Your task to perform on an android device: check storage Image 0: 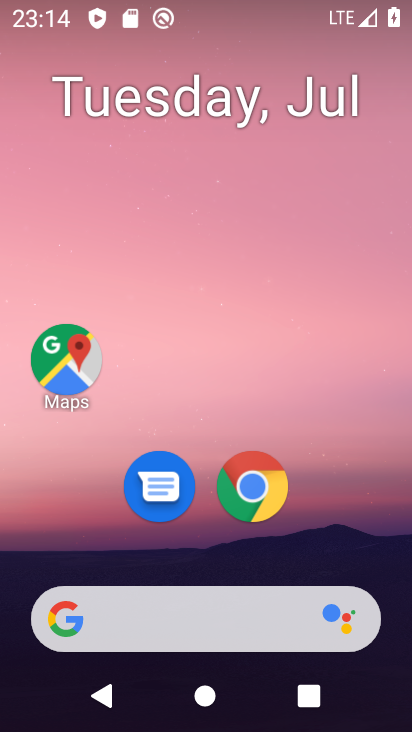
Step 0: press home button
Your task to perform on an android device: check storage Image 1: 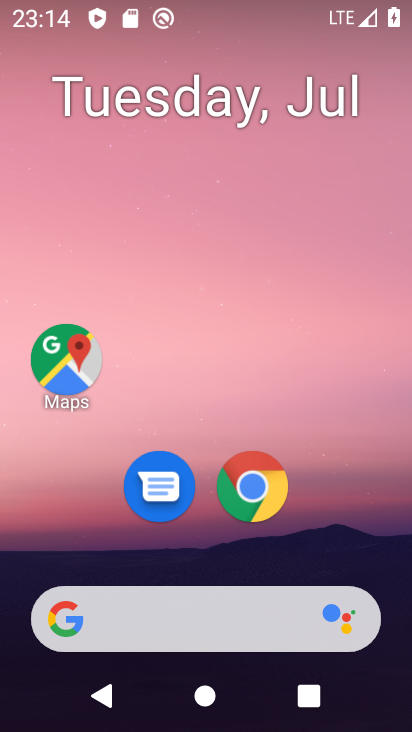
Step 1: drag from (352, 530) to (355, 150)
Your task to perform on an android device: check storage Image 2: 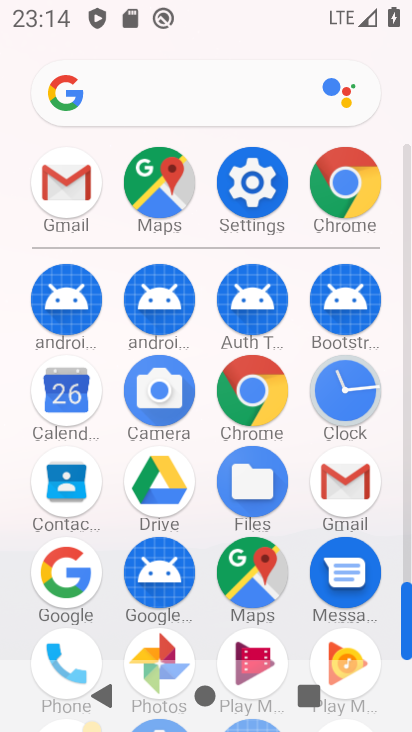
Step 2: click (253, 197)
Your task to perform on an android device: check storage Image 3: 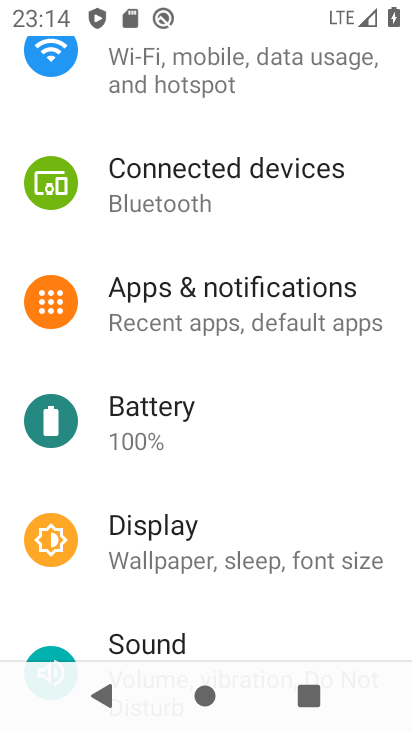
Step 3: drag from (328, 210) to (338, 339)
Your task to perform on an android device: check storage Image 4: 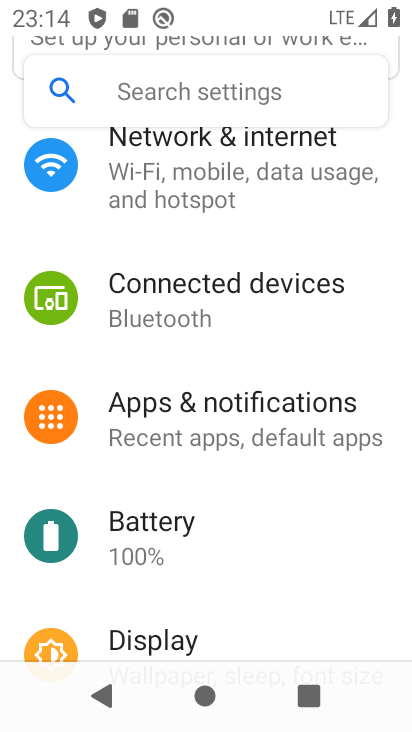
Step 4: drag from (364, 211) to (369, 341)
Your task to perform on an android device: check storage Image 5: 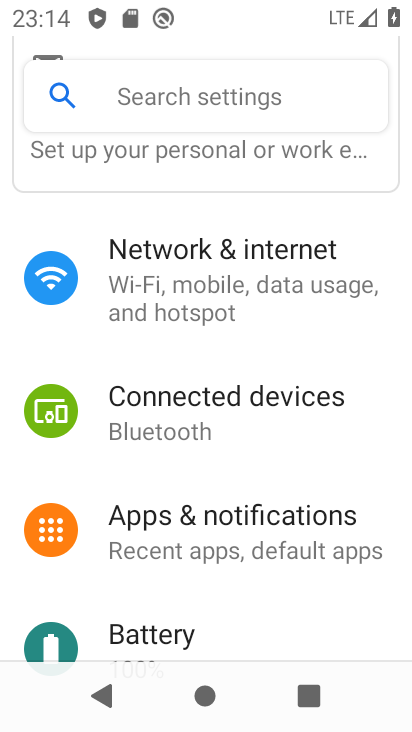
Step 5: drag from (367, 205) to (367, 339)
Your task to perform on an android device: check storage Image 6: 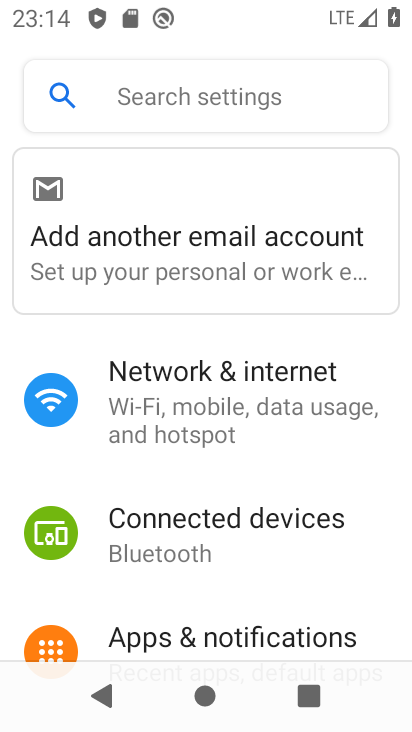
Step 6: drag from (377, 210) to (377, 385)
Your task to perform on an android device: check storage Image 7: 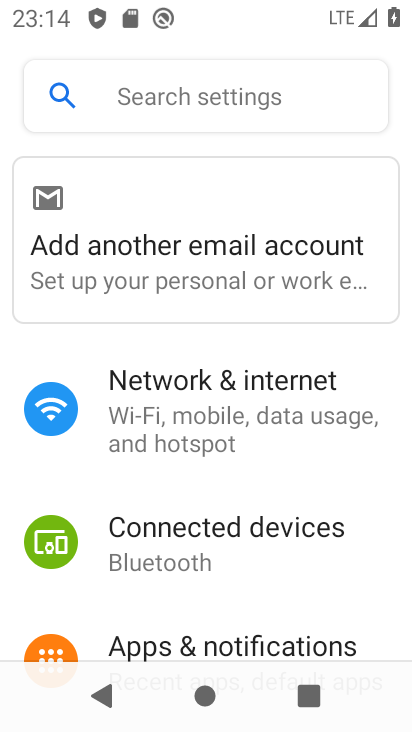
Step 7: drag from (336, 494) to (335, 401)
Your task to perform on an android device: check storage Image 8: 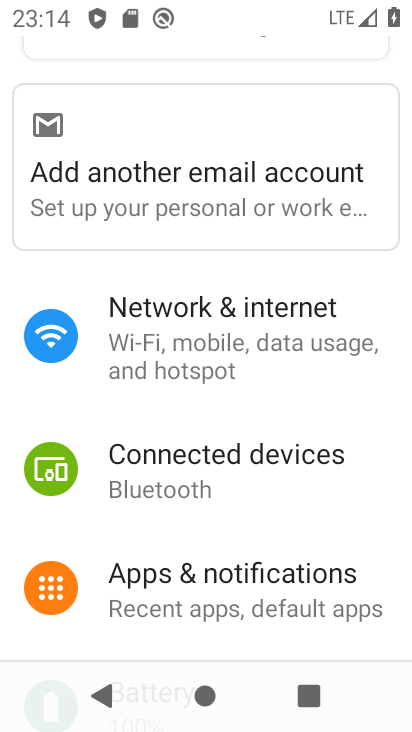
Step 8: drag from (336, 507) to (345, 405)
Your task to perform on an android device: check storage Image 9: 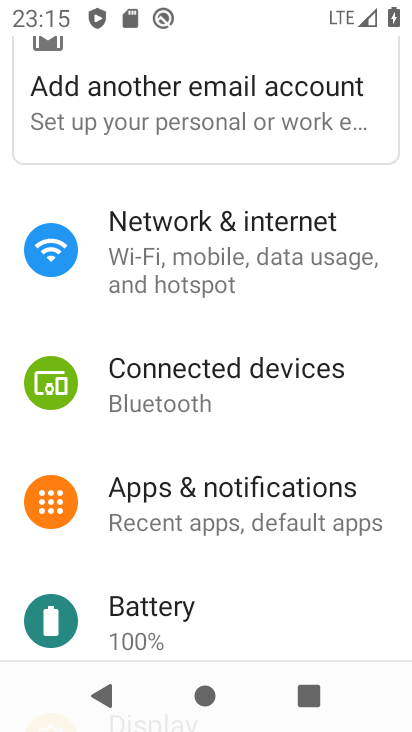
Step 9: drag from (311, 580) to (324, 377)
Your task to perform on an android device: check storage Image 10: 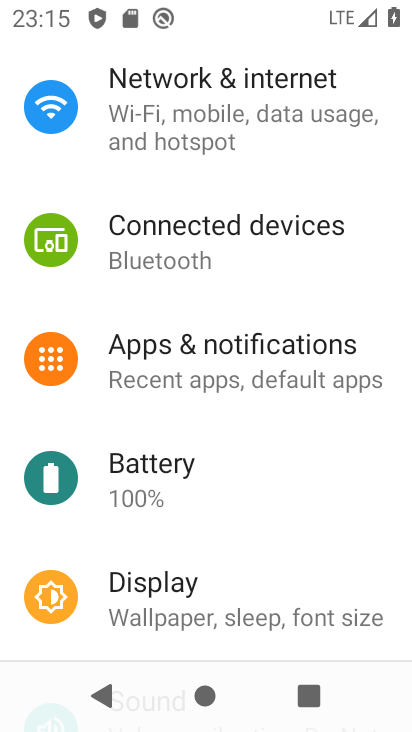
Step 10: drag from (301, 516) to (299, 403)
Your task to perform on an android device: check storage Image 11: 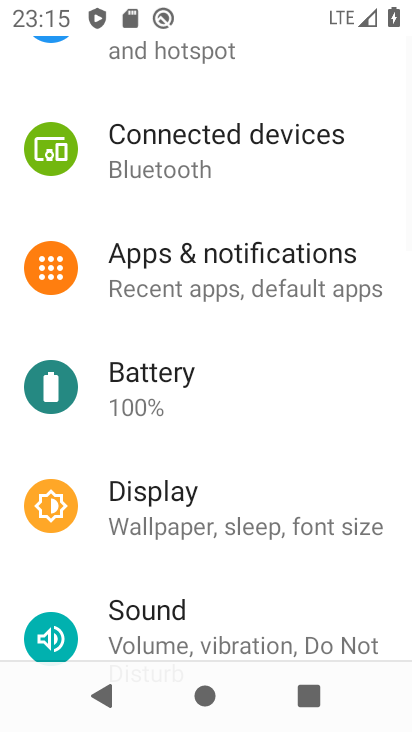
Step 11: drag from (289, 494) to (286, 397)
Your task to perform on an android device: check storage Image 12: 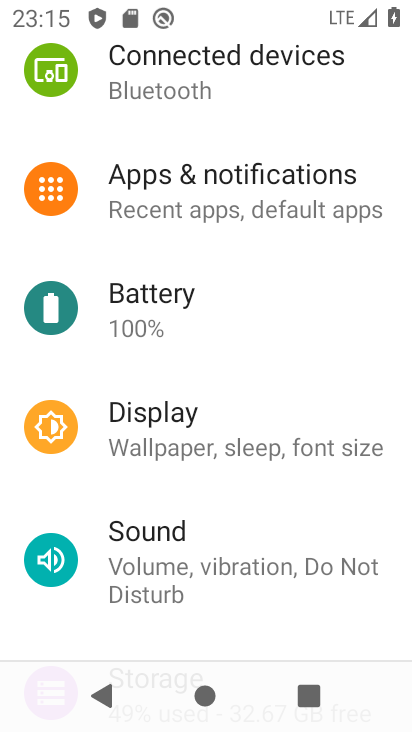
Step 12: drag from (269, 468) to (269, 378)
Your task to perform on an android device: check storage Image 13: 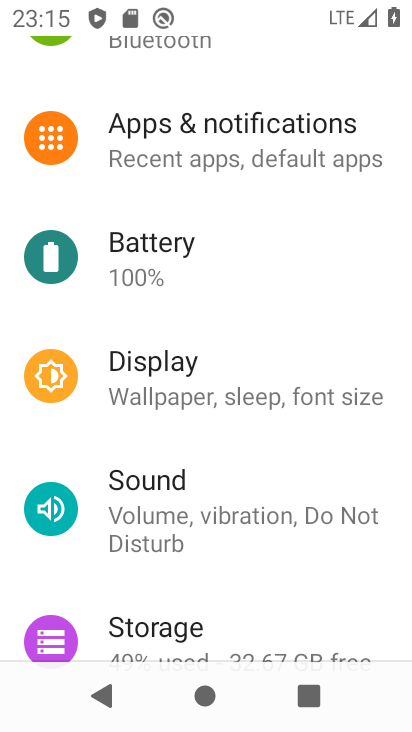
Step 13: drag from (286, 485) to (287, 386)
Your task to perform on an android device: check storage Image 14: 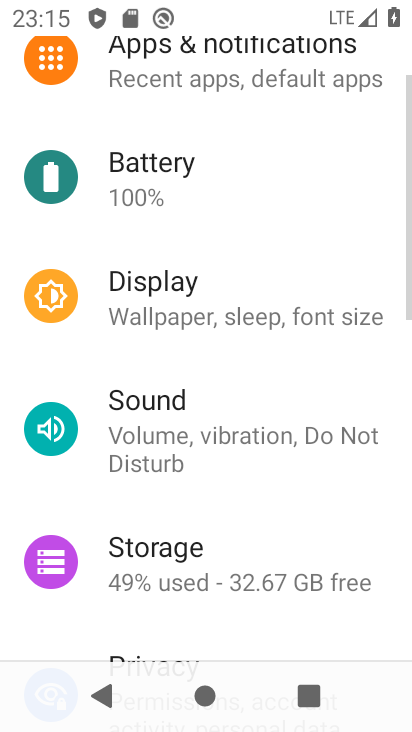
Step 14: drag from (307, 522) to (312, 405)
Your task to perform on an android device: check storage Image 15: 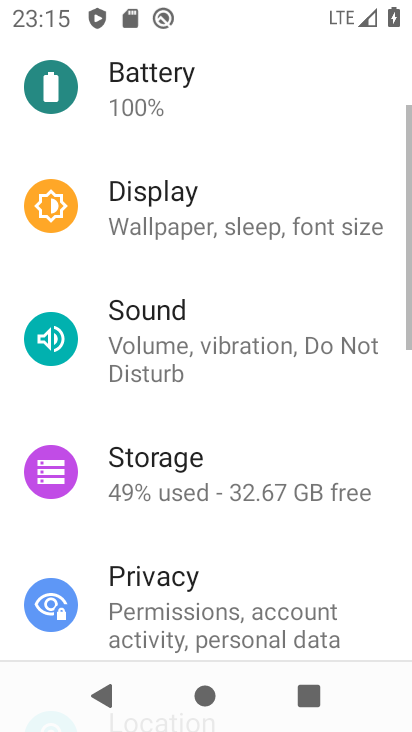
Step 15: click (321, 491)
Your task to perform on an android device: check storage Image 16: 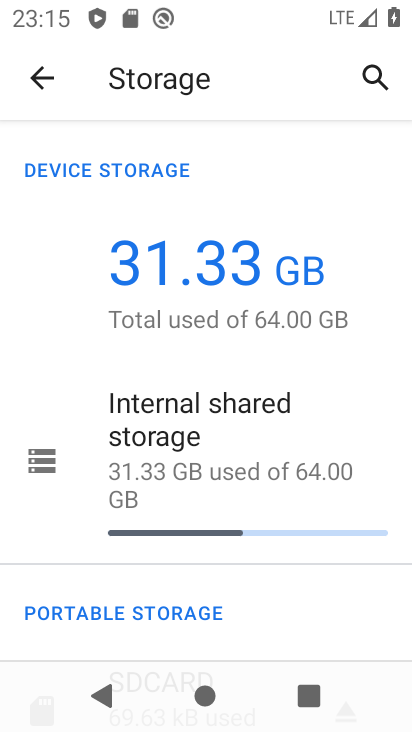
Step 16: task complete